Your task to perform on an android device: Search for razer blade on target.com, select the first entry, and add it to the cart. Image 0: 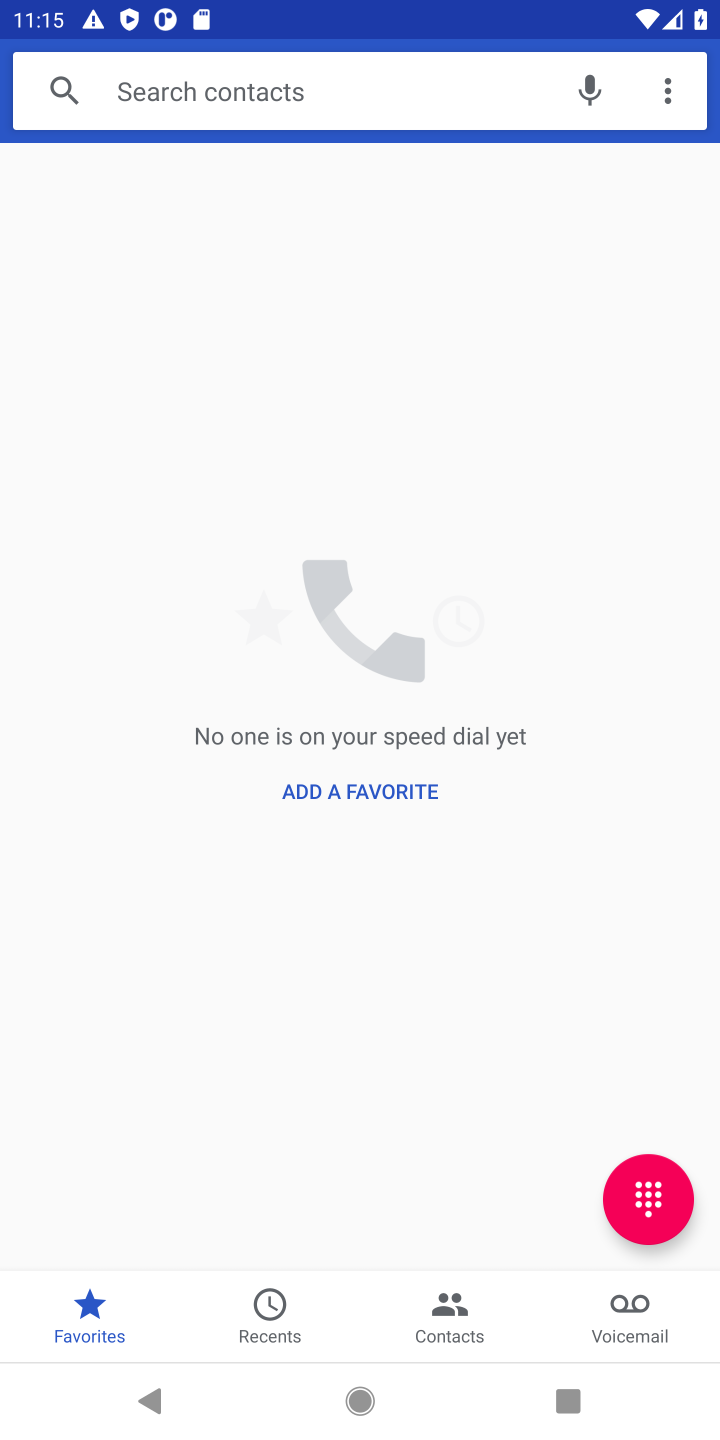
Step 0: press home button
Your task to perform on an android device: Search for razer blade on target.com, select the first entry, and add it to the cart. Image 1: 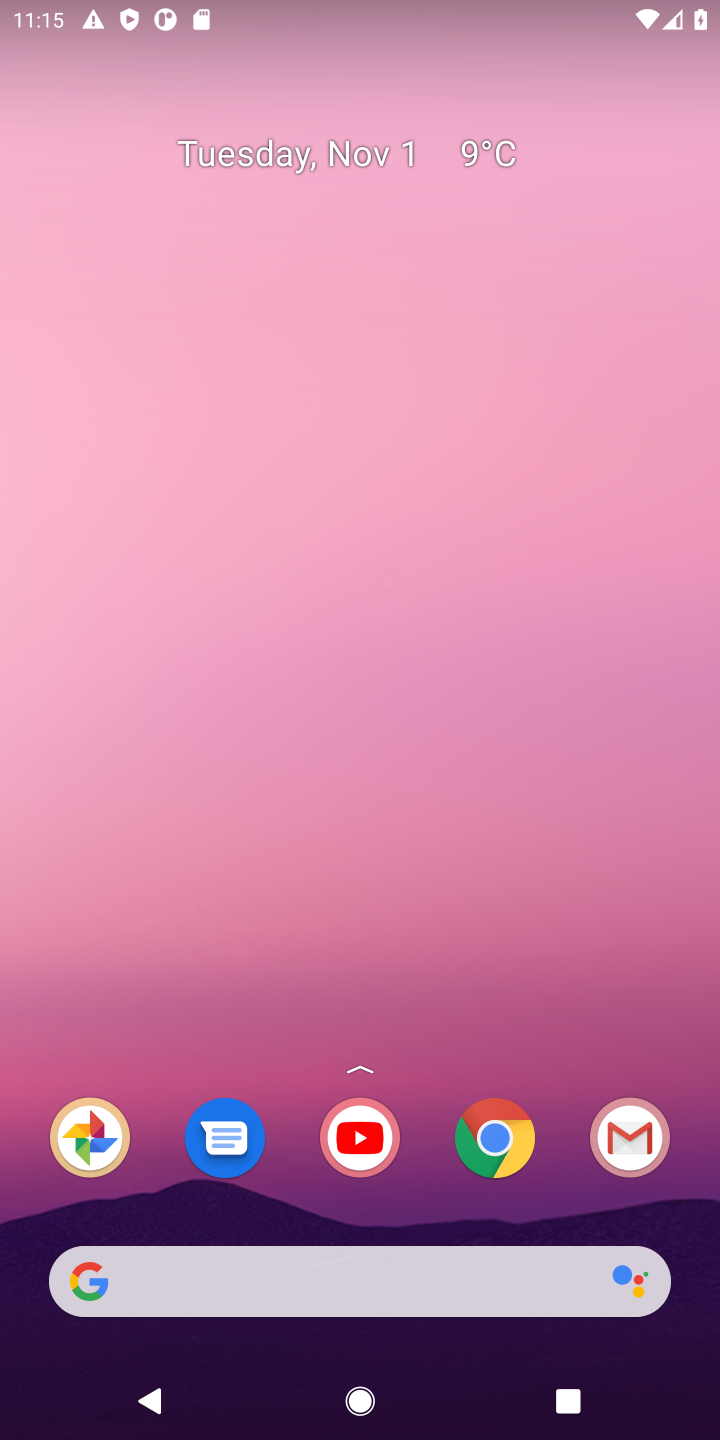
Step 1: click (420, 1293)
Your task to perform on an android device: Search for razer blade on target.com, select the first entry, and add it to the cart. Image 2: 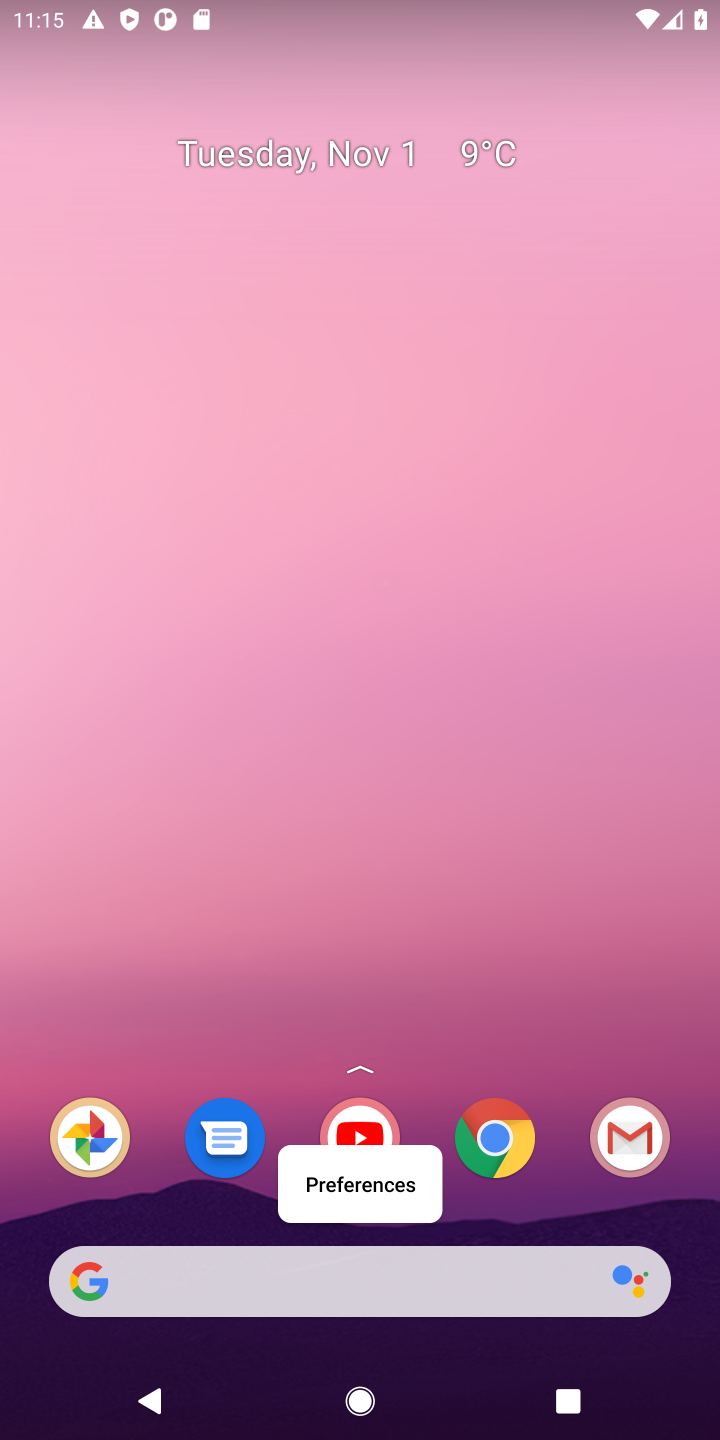
Step 2: click (420, 1293)
Your task to perform on an android device: Search for razer blade on target.com, select the first entry, and add it to the cart. Image 3: 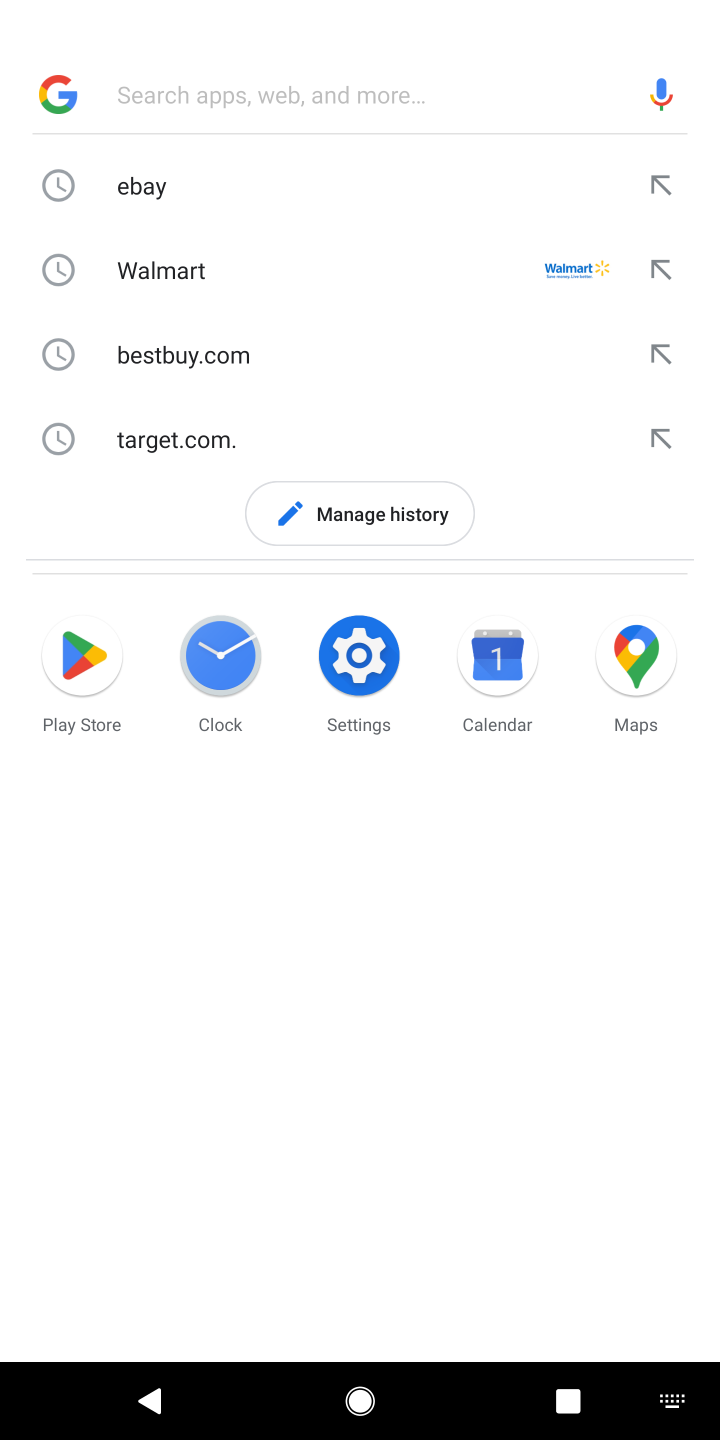
Step 3: type "target.com"
Your task to perform on an android device: Search for razer blade on target.com, select the first entry, and add it to the cart. Image 4: 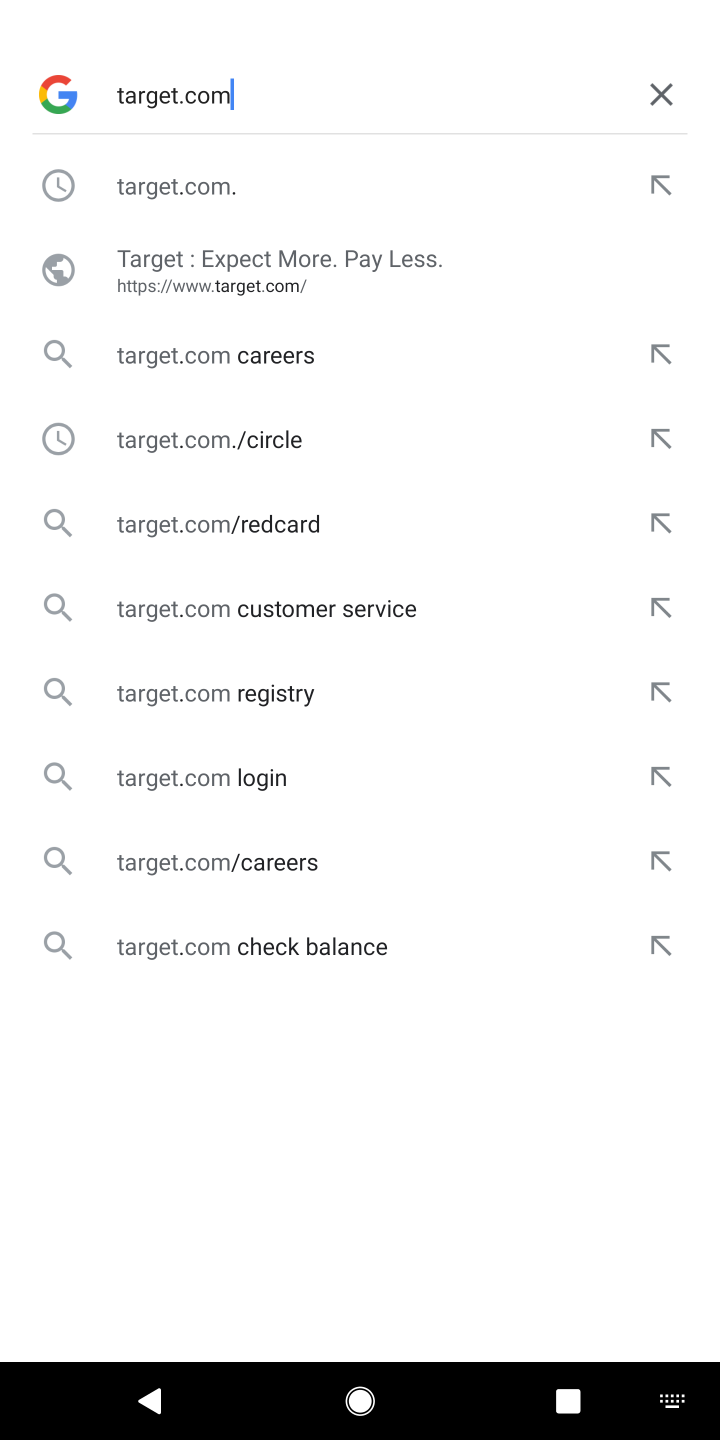
Step 4: click (296, 187)
Your task to perform on an android device: Search for razer blade on target.com, select the first entry, and add it to the cart. Image 5: 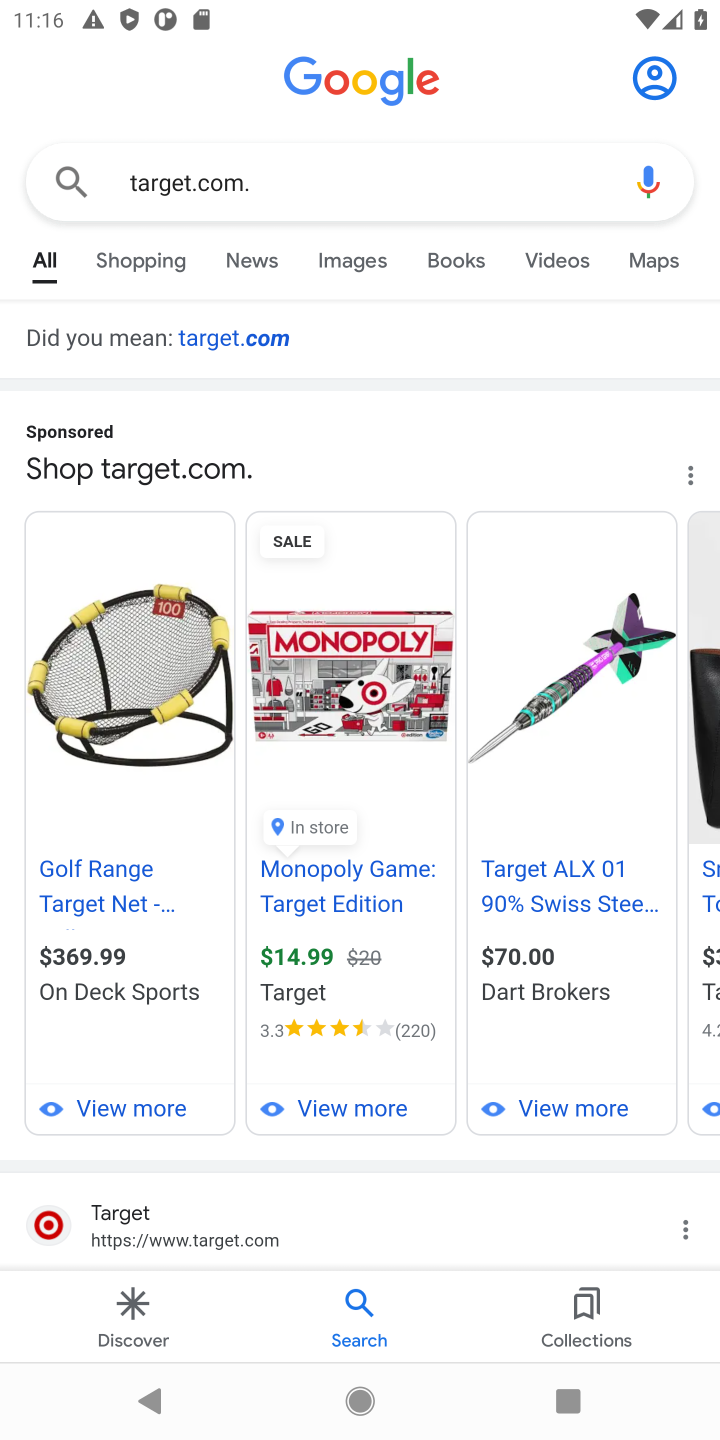
Step 5: drag from (242, 885) to (338, 381)
Your task to perform on an android device: Search for razer blade on target.com, select the first entry, and add it to the cart. Image 6: 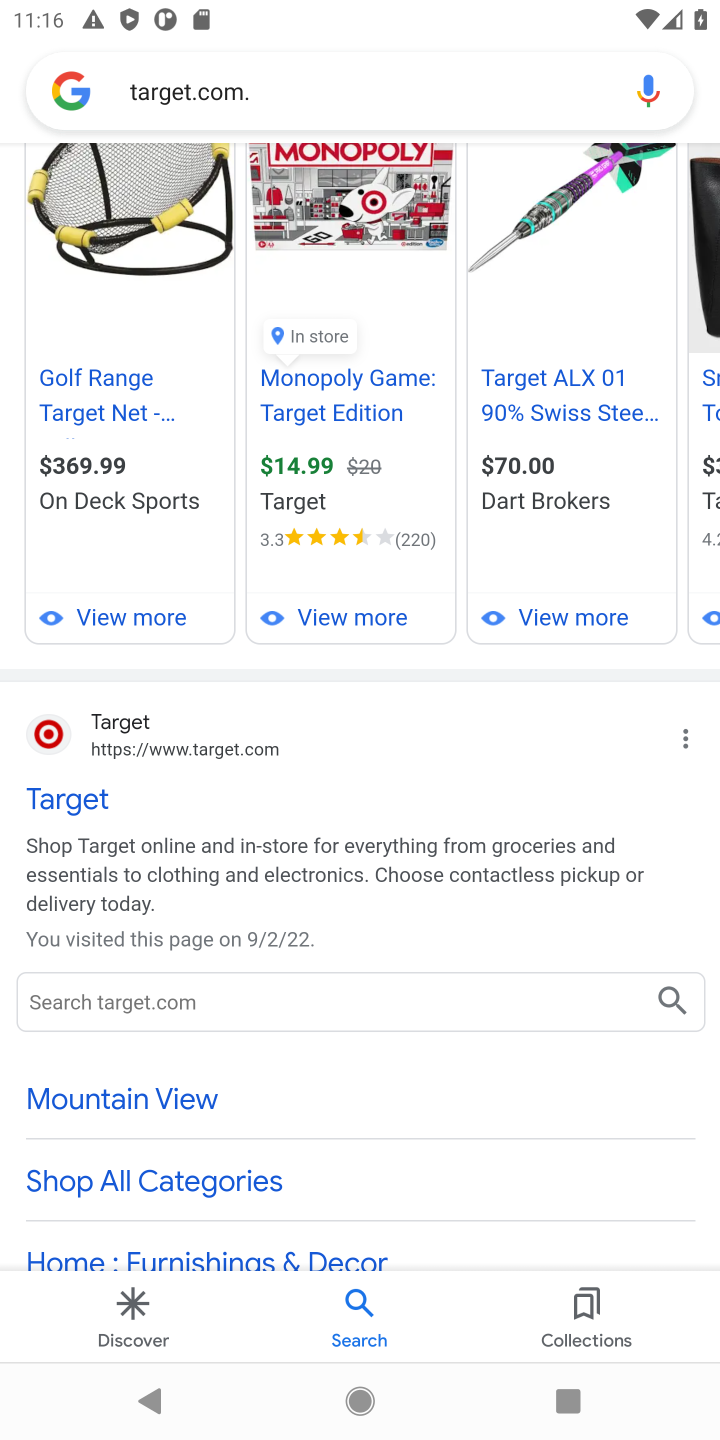
Step 6: click (87, 797)
Your task to perform on an android device: Search for razer blade on target.com, select the first entry, and add it to the cart. Image 7: 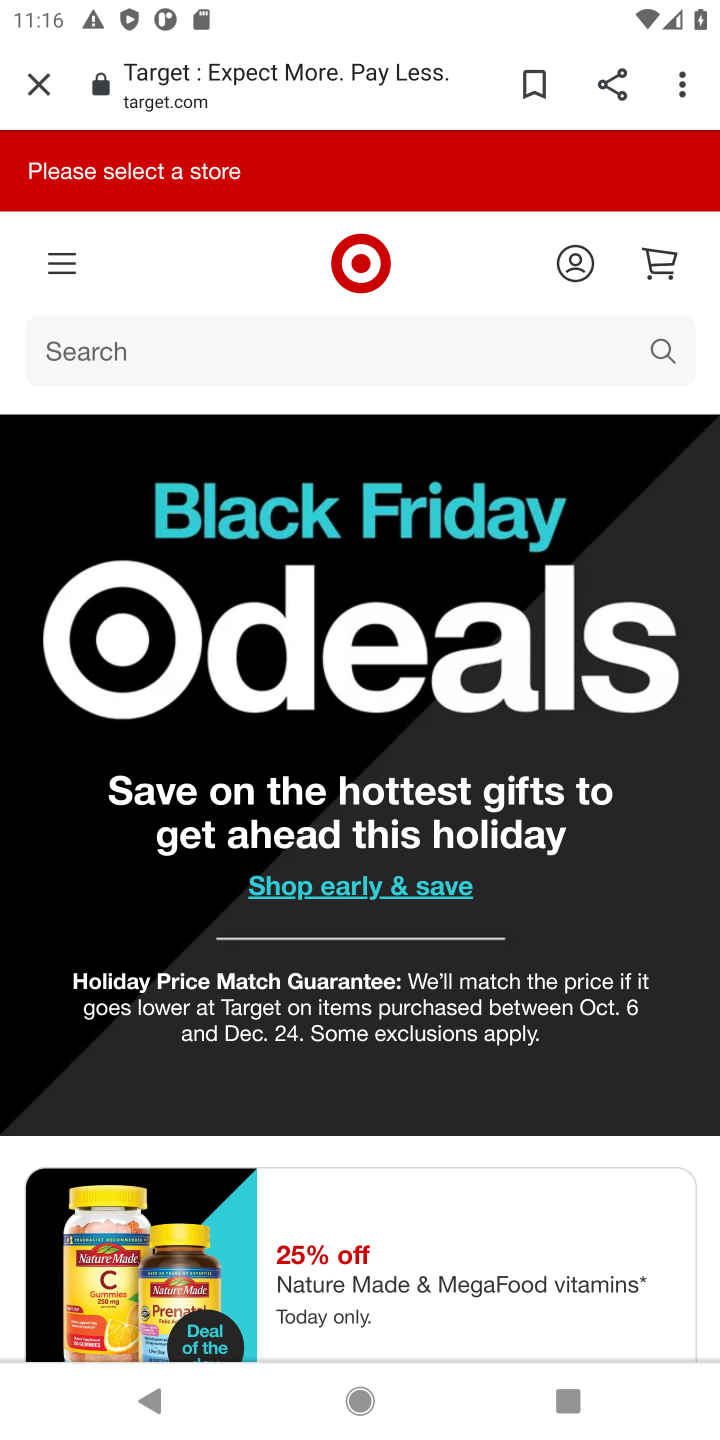
Step 7: click (274, 326)
Your task to perform on an android device: Search for razer blade on target.com, select the first entry, and add it to the cart. Image 8: 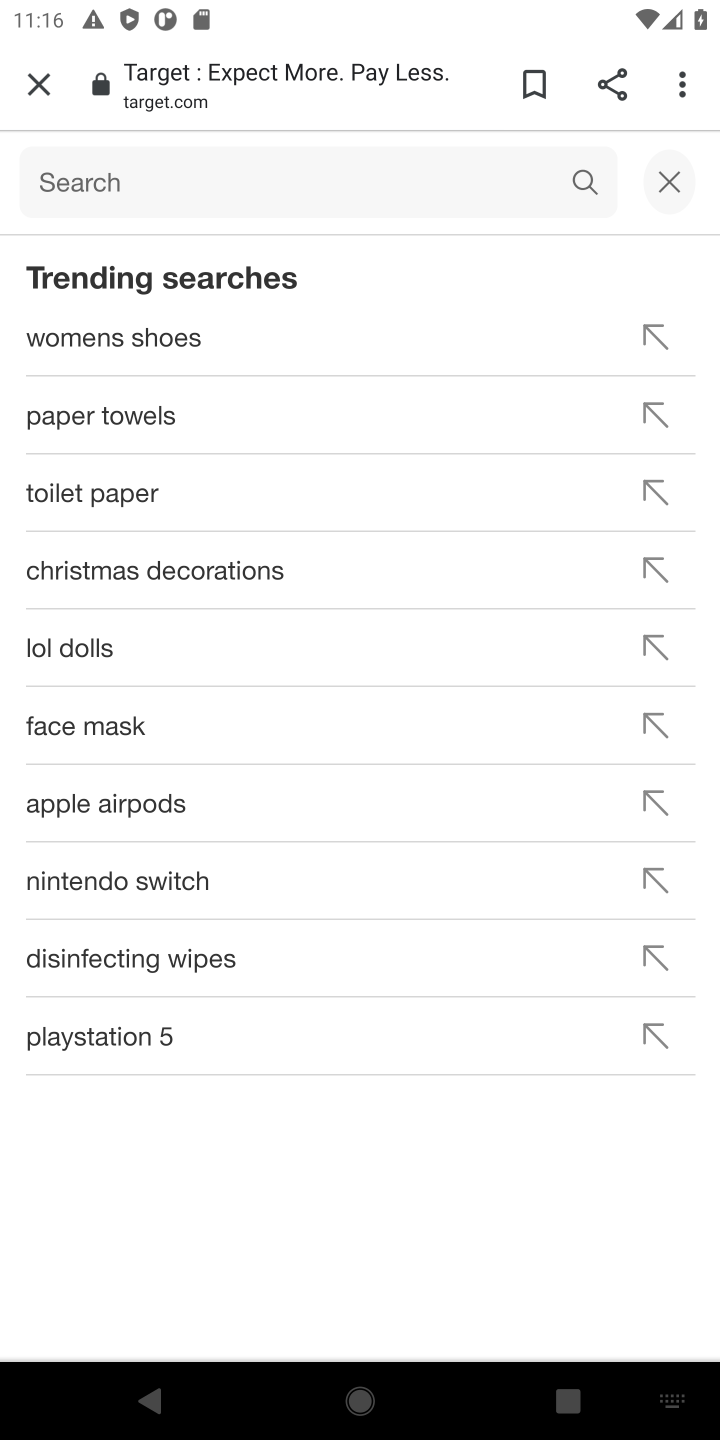
Step 8: type "razer blade"
Your task to perform on an android device: Search for razer blade on target.com, select the first entry, and add it to the cart. Image 9: 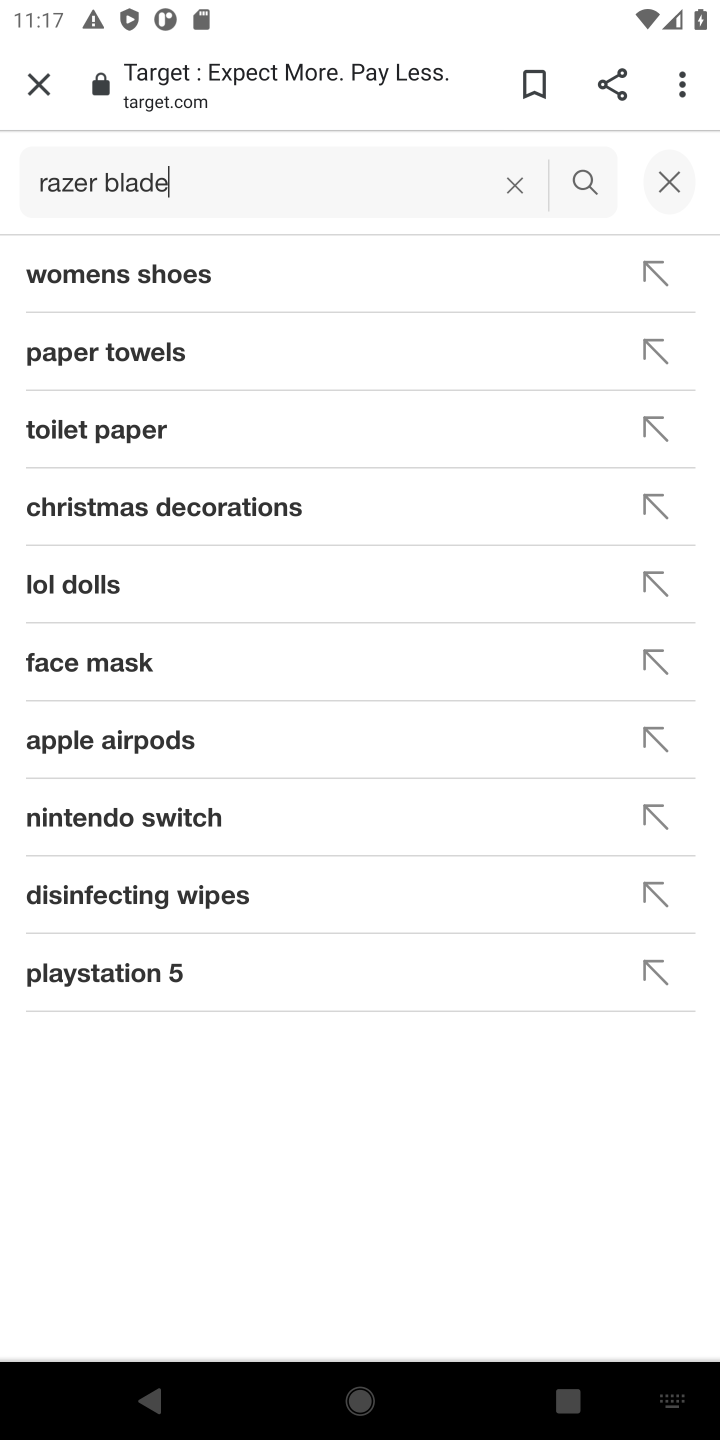
Step 9: type ""
Your task to perform on an android device: Search for razer blade on target.com, select the first entry, and add it to the cart. Image 10: 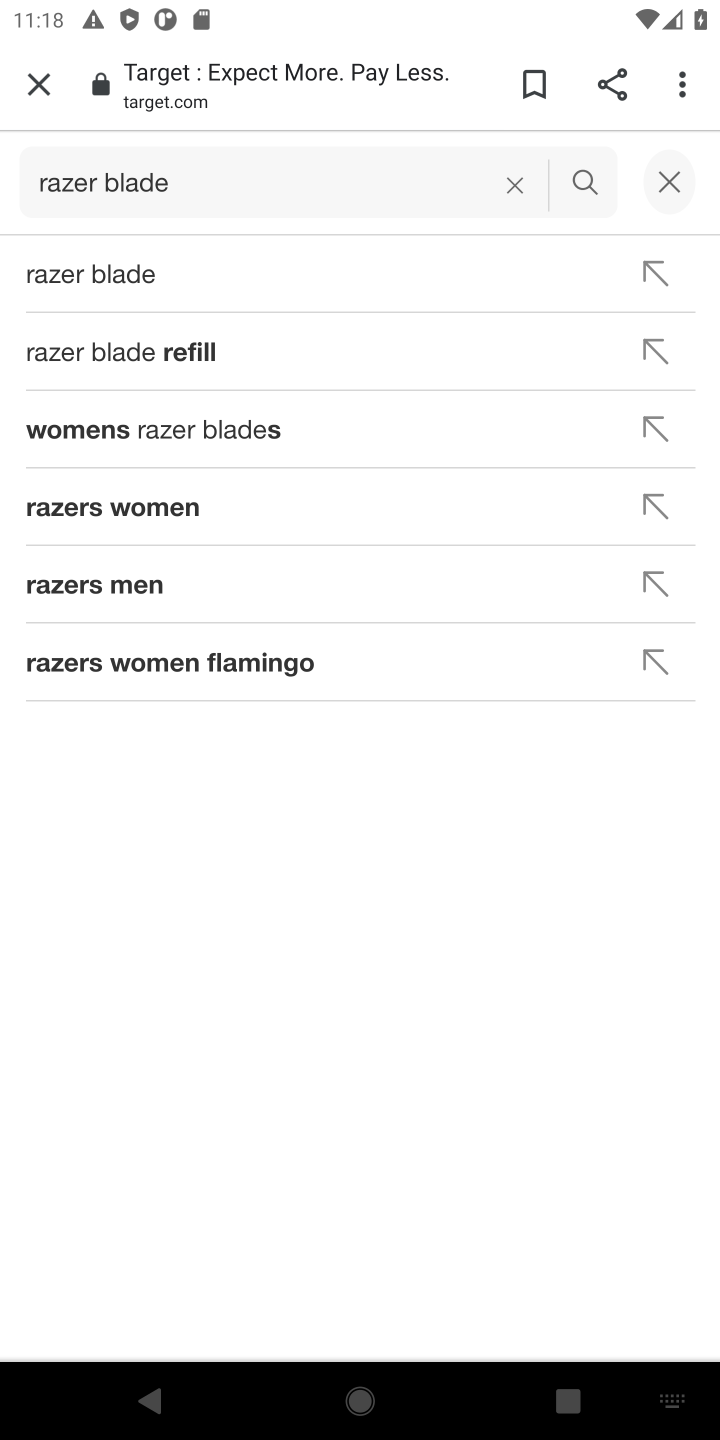
Step 10: click (571, 191)
Your task to perform on an android device: Search for razer blade on target.com, select the first entry, and add it to the cart. Image 11: 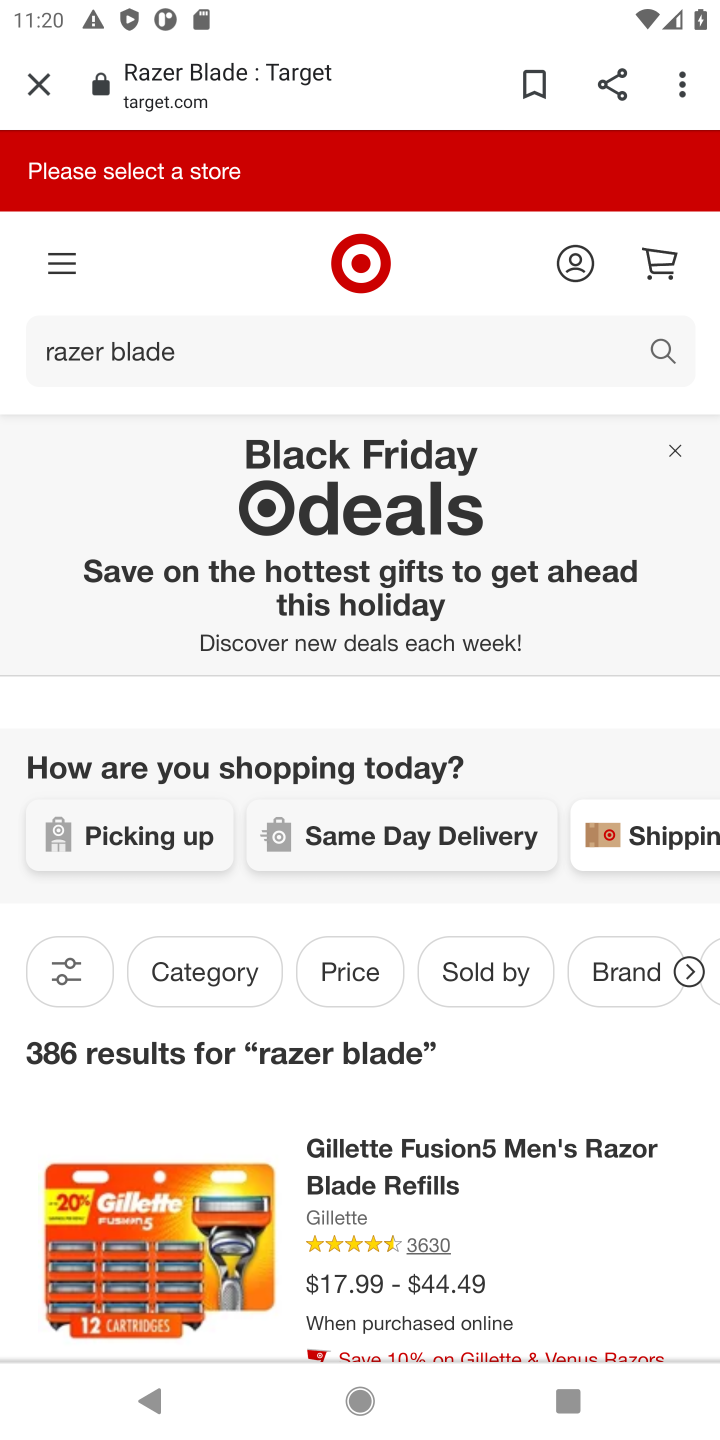
Step 11: click (504, 1204)
Your task to perform on an android device: Search for razer blade on target.com, select the first entry, and add it to the cart. Image 12: 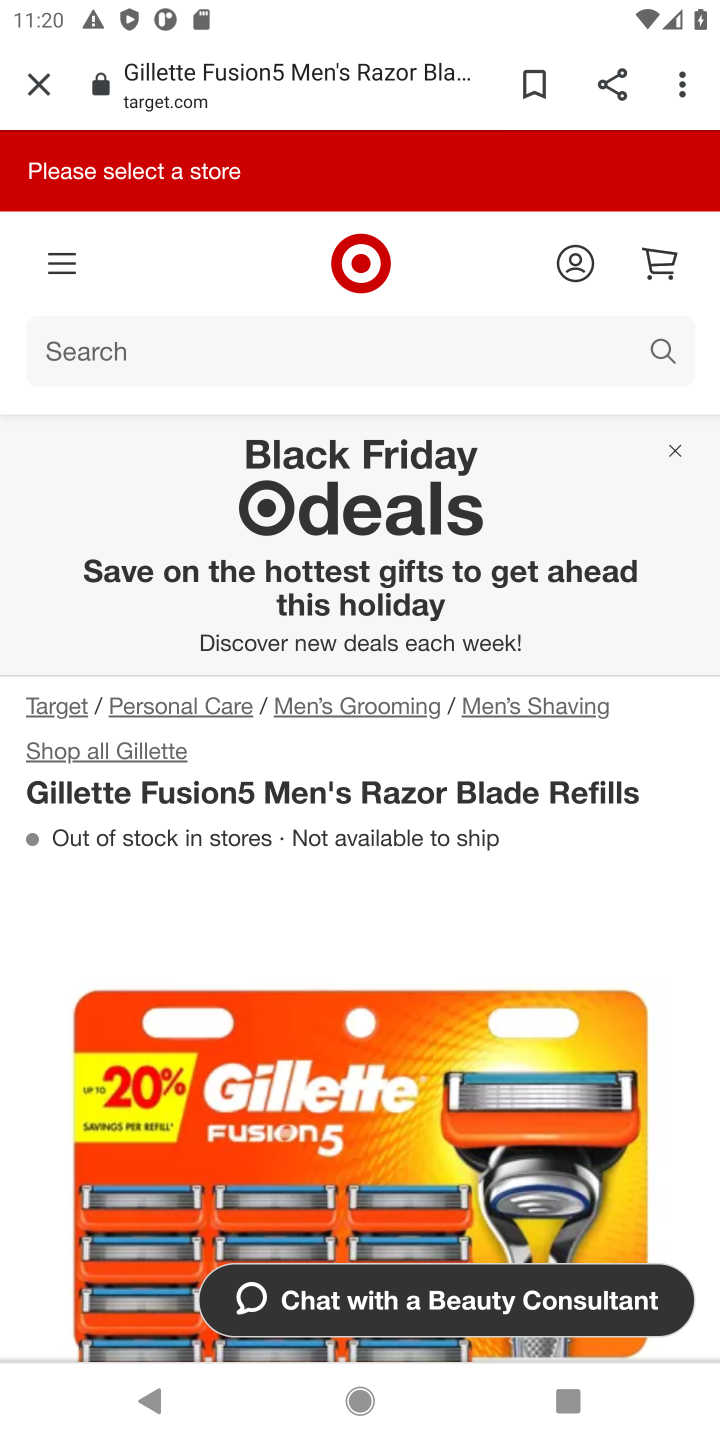
Step 12: drag from (504, 824) to (549, 424)
Your task to perform on an android device: Search for razer blade on target.com, select the first entry, and add it to the cart. Image 13: 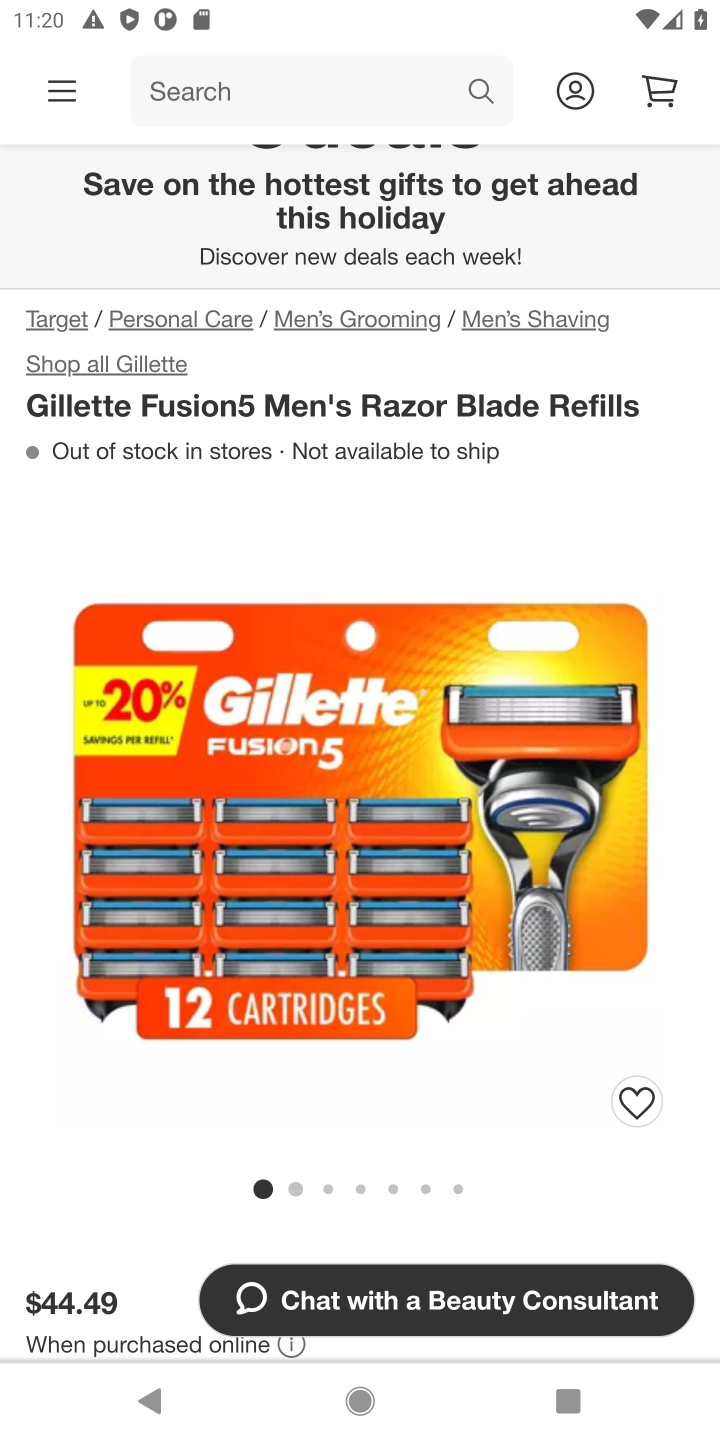
Step 13: drag from (373, 908) to (442, 543)
Your task to perform on an android device: Search for razer blade on target.com, select the first entry, and add it to the cart. Image 14: 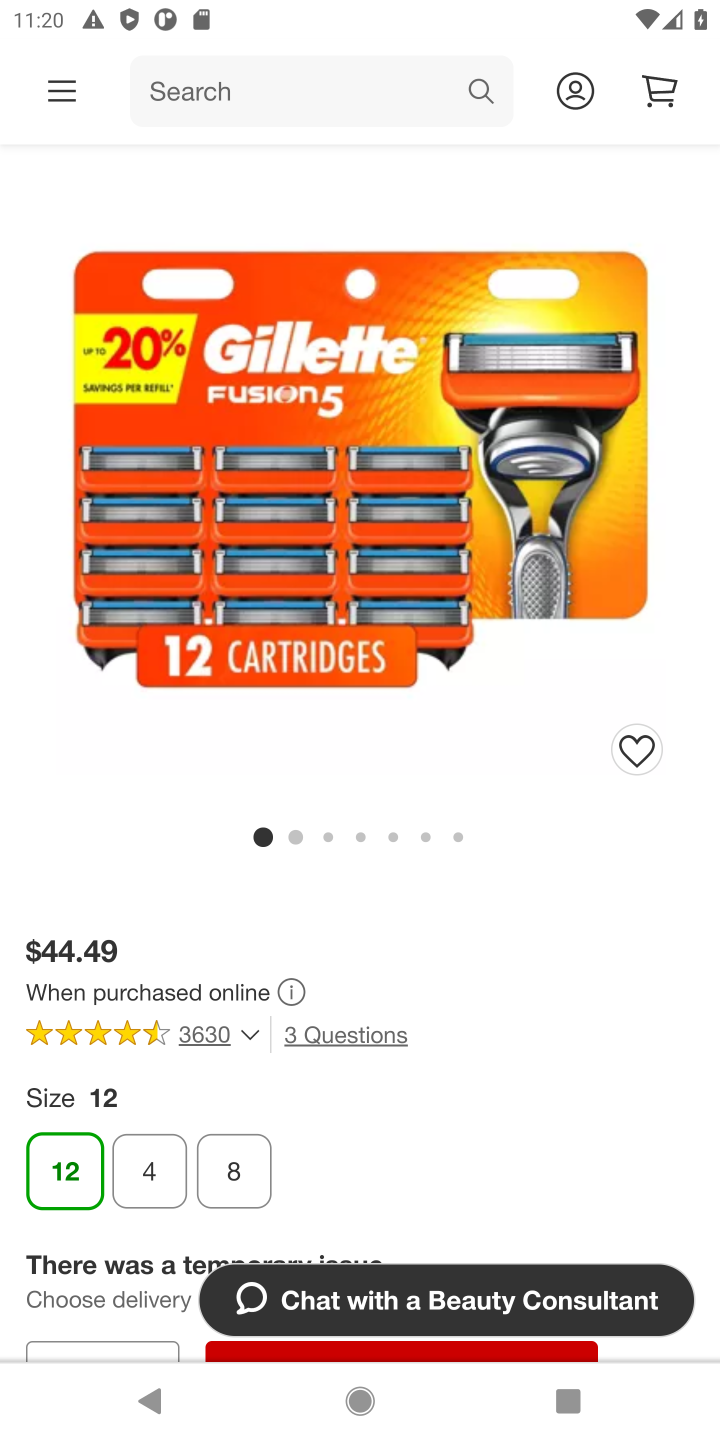
Step 14: drag from (509, 831) to (555, 569)
Your task to perform on an android device: Search for razer blade on target.com, select the first entry, and add it to the cart. Image 15: 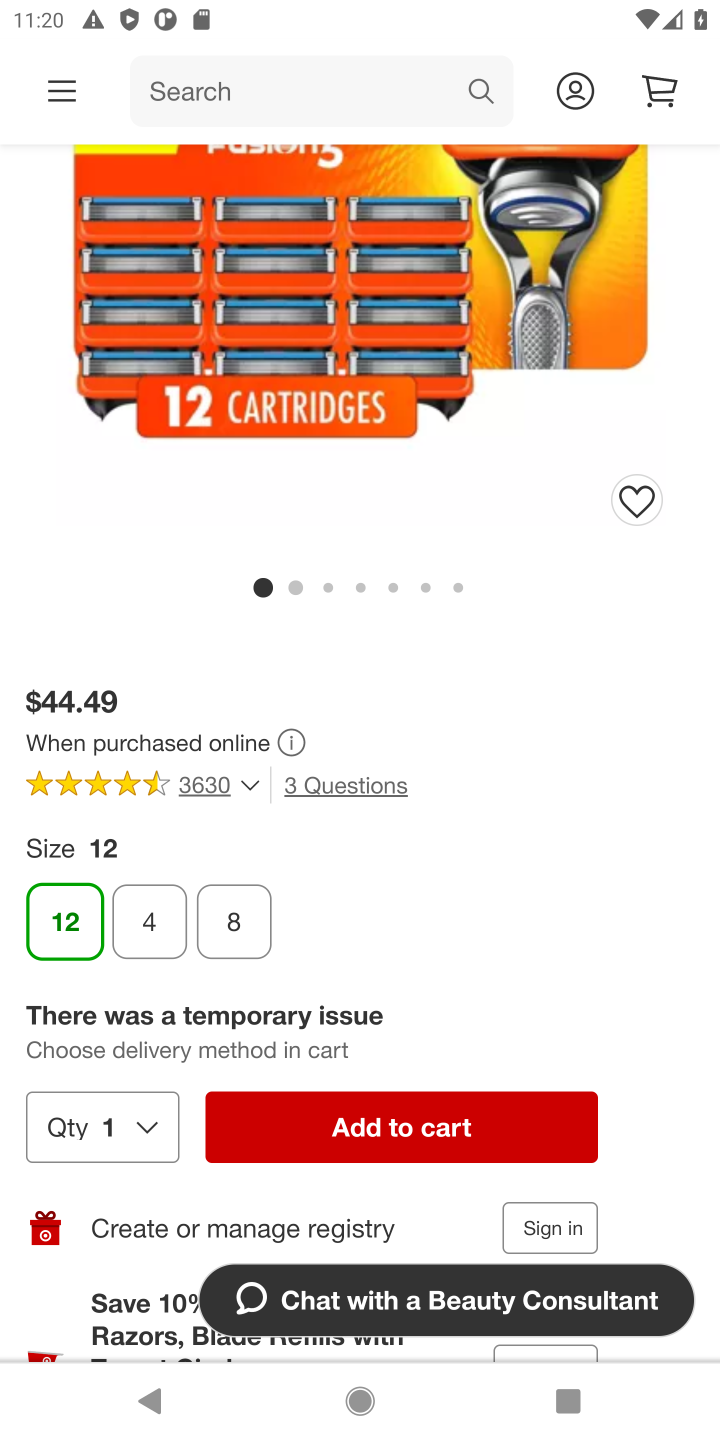
Step 15: click (424, 1108)
Your task to perform on an android device: Search for razer blade on target.com, select the first entry, and add it to the cart. Image 16: 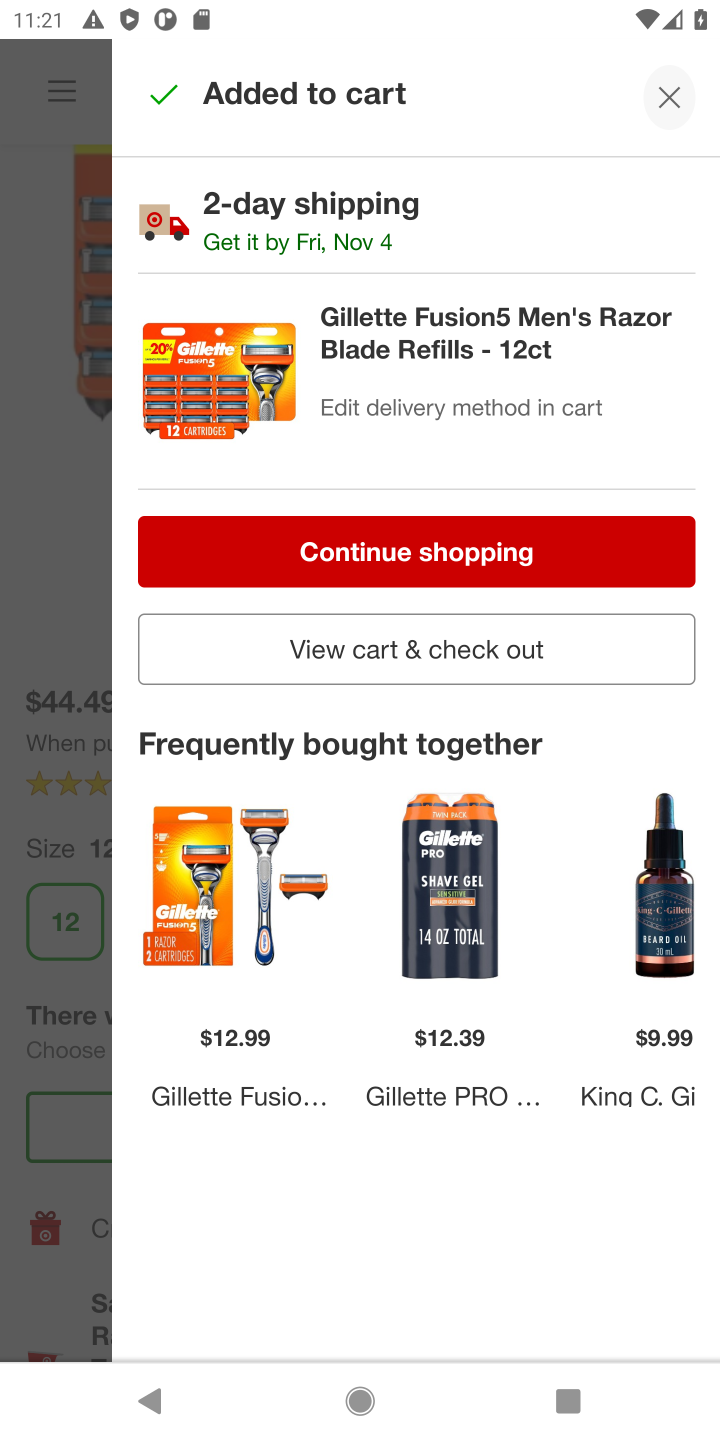
Step 16: task complete